Your task to perform on an android device: Is it going to rain this weekend? Image 0: 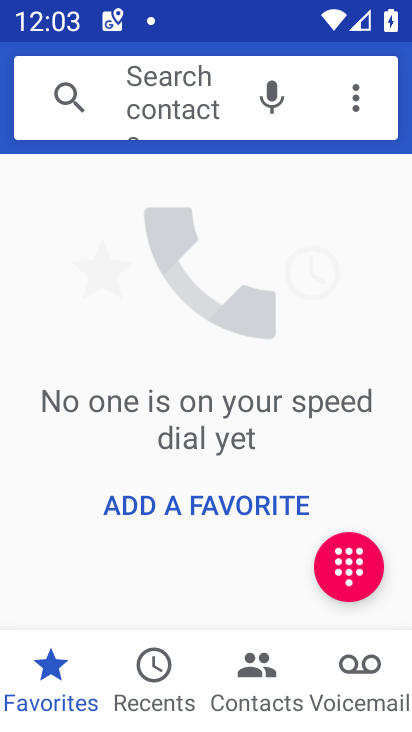
Step 0: press home button
Your task to perform on an android device: Is it going to rain this weekend? Image 1: 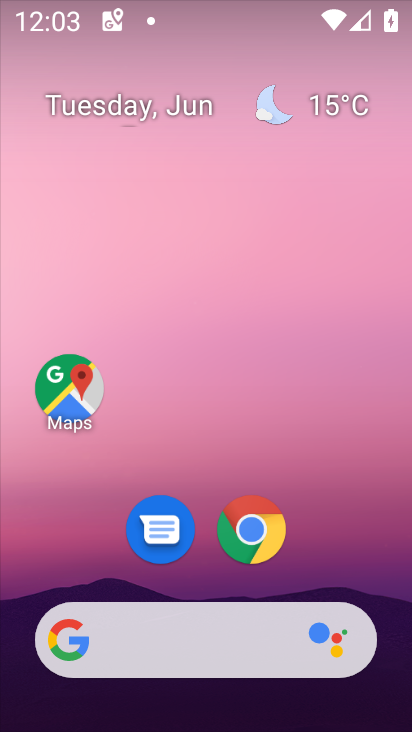
Step 1: click (289, 122)
Your task to perform on an android device: Is it going to rain this weekend? Image 2: 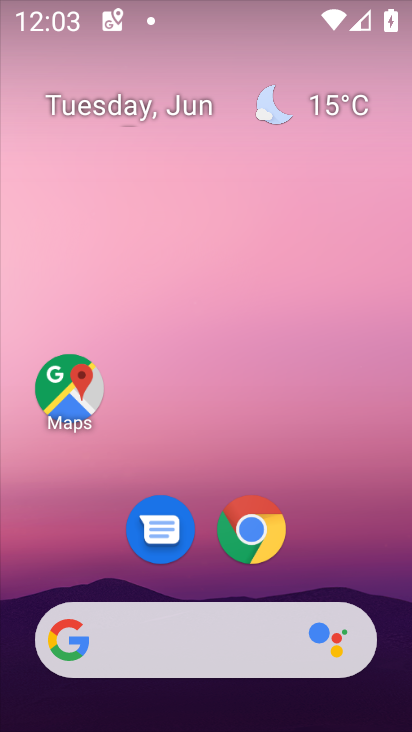
Step 2: click (285, 119)
Your task to perform on an android device: Is it going to rain this weekend? Image 3: 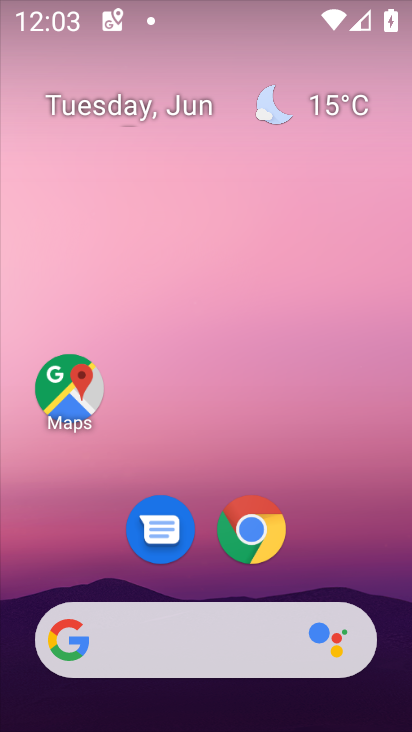
Step 3: click (311, 116)
Your task to perform on an android device: Is it going to rain this weekend? Image 4: 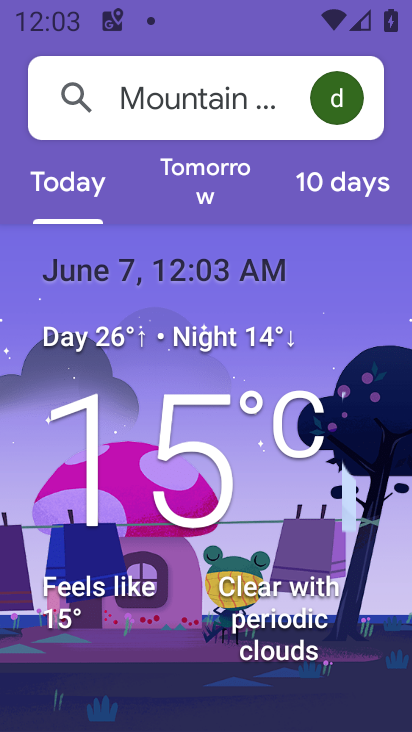
Step 4: click (348, 186)
Your task to perform on an android device: Is it going to rain this weekend? Image 5: 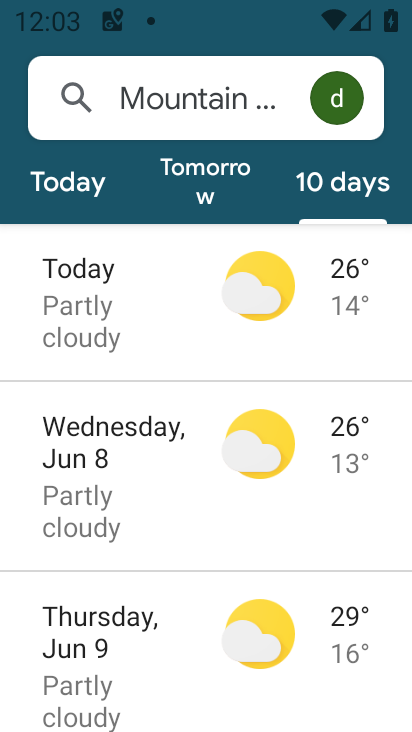
Step 5: click (173, 611)
Your task to perform on an android device: Is it going to rain this weekend? Image 6: 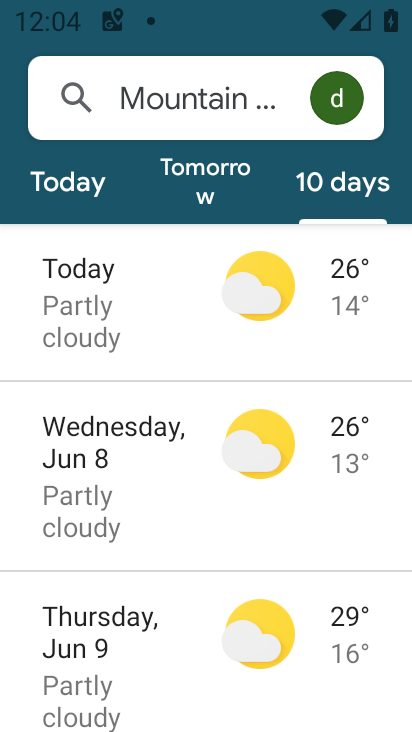
Step 6: task complete